Your task to perform on an android device: turn off picture-in-picture Image 0: 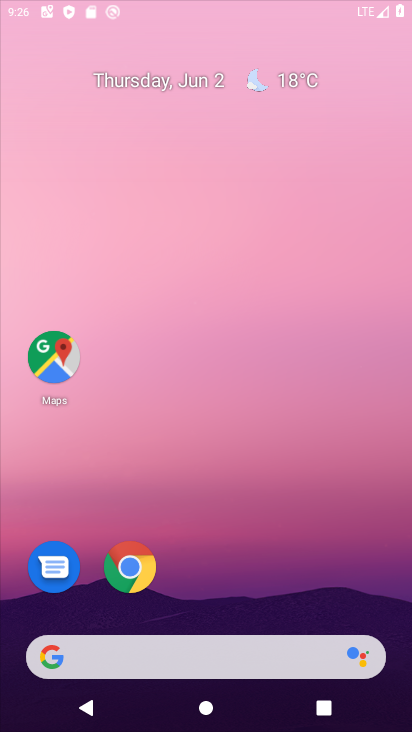
Step 0: press home button
Your task to perform on an android device: turn off picture-in-picture Image 1: 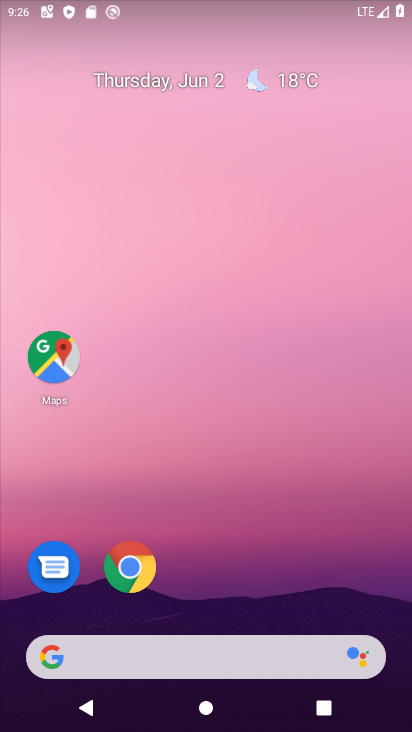
Step 1: click (130, 566)
Your task to perform on an android device: turn off picture-in-picture Image 2: 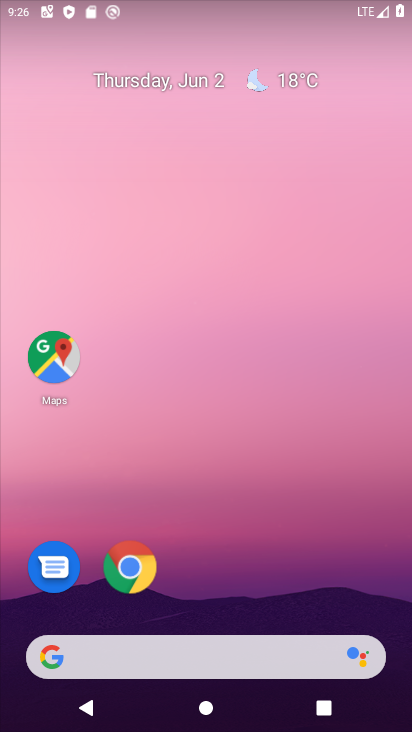
Step 2: click (130, 566)
Your task to perform on an android device: turn off picture-in-picture Image 3: 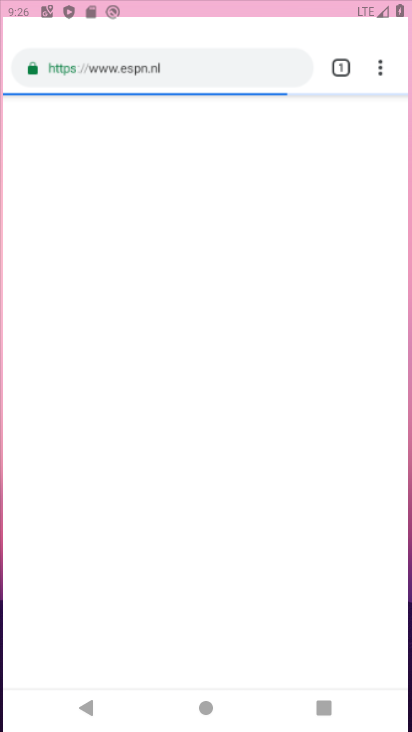
Step 3: click (130, 566)
Your task to perform on an android device: turn off picture-in-picture Image 4: 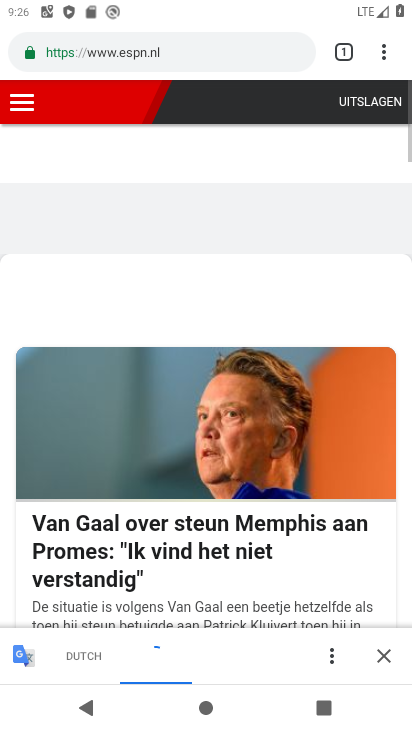
Step 4: press home button
Your task to perform on an android device: turn off picture-in-picture Image 5: 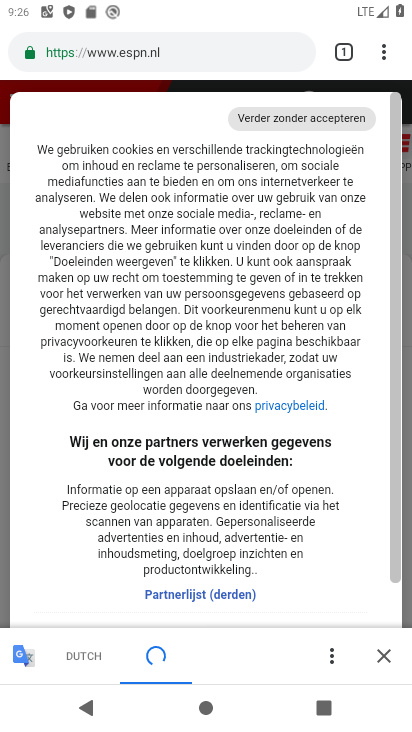
Step 5: press home button
Your task to perform on an android device: turn off picture-in-picture Image 6: 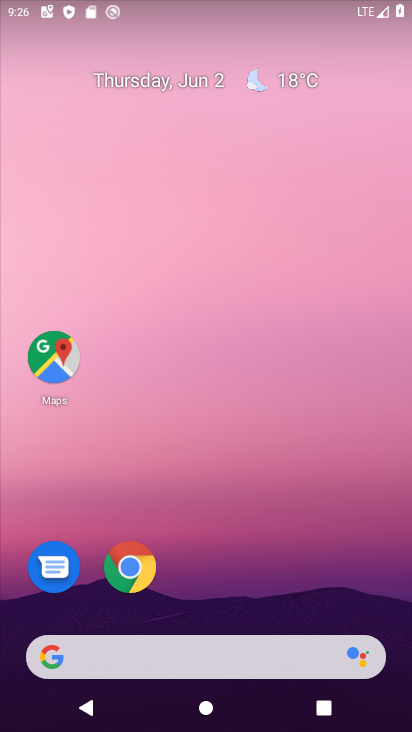
Step 6: click (133, 574)
Your task to perform on an android device: turn off picture-in-picture Image 7: 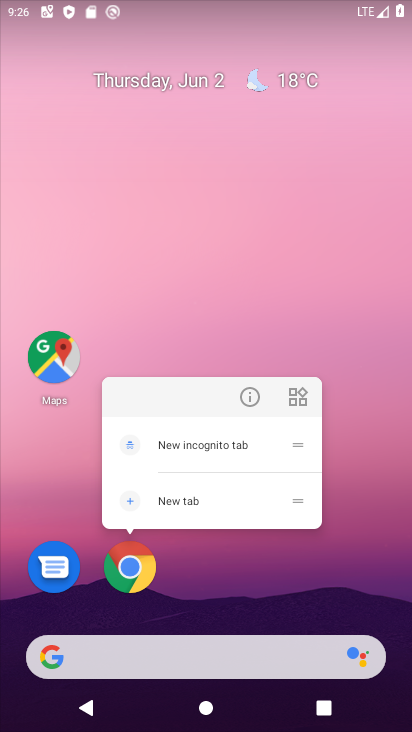
Step 7: click (246, 394)
Your task to perform on an android device: turn off picture-in-picture Image 8: 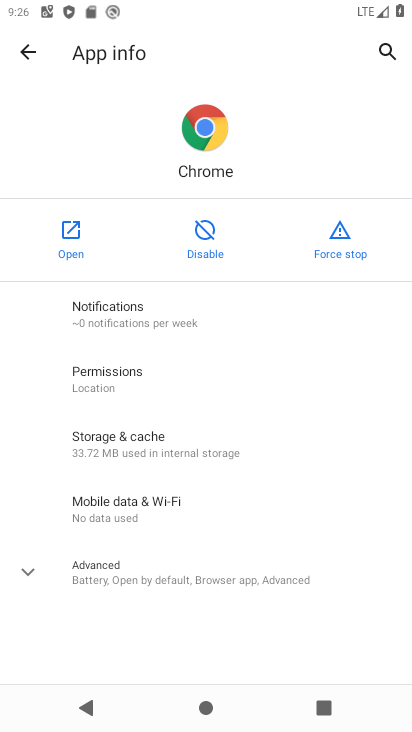
Step 8: click (88, 562)
Your task to perform on an android device: turn off picture-in-picture Image 9: 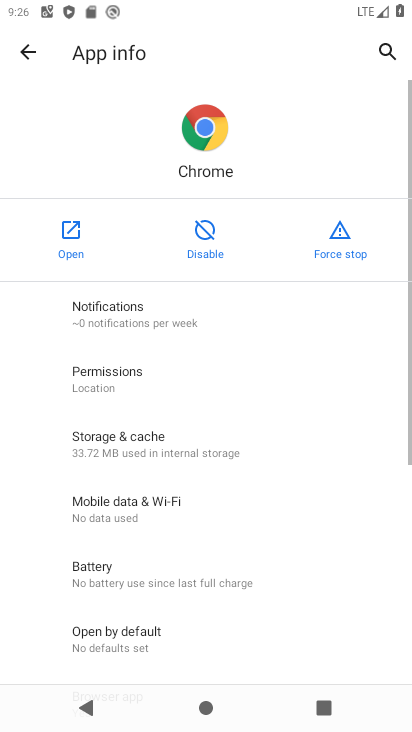
Step 9: drag from (168, 593) to (197, 183)
Your task to perform on an android device: turn off picture-in-picture Image 10: 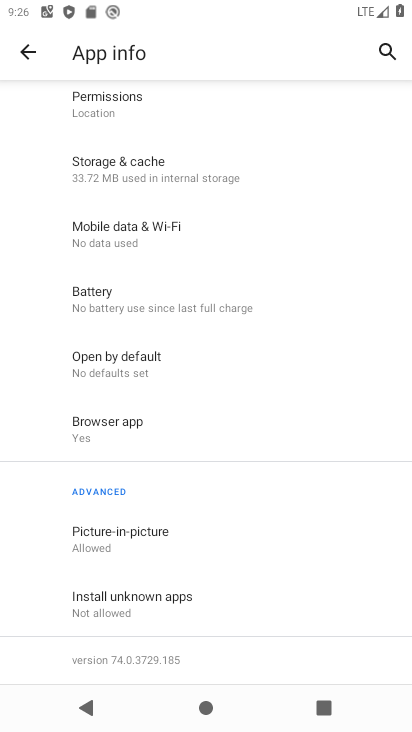
Step 10: click (121, 527)
Your task to perform on an android device: turn off picture-in-picture Image 11: 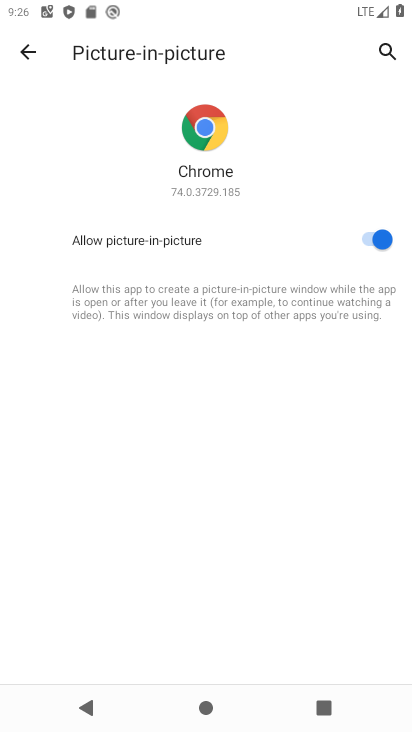
Step 11: click (374, 234)
Your task to perform on an android device: turn off picture-in-picture Image 12: 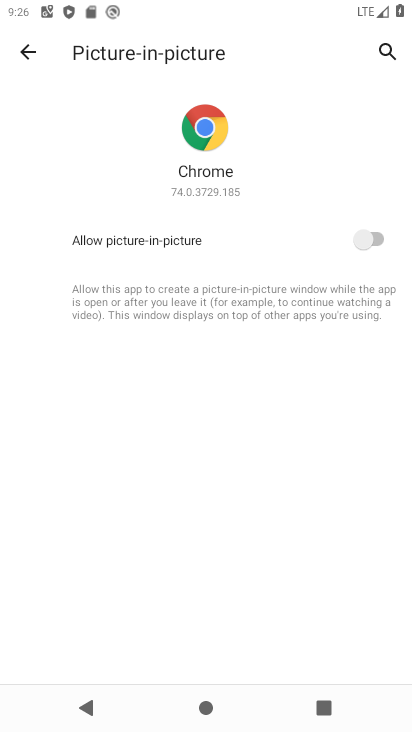
Step 12: task complete